Your task to perform on an android device: install app "Pluto TV - Live TV and Movies" Image 0: 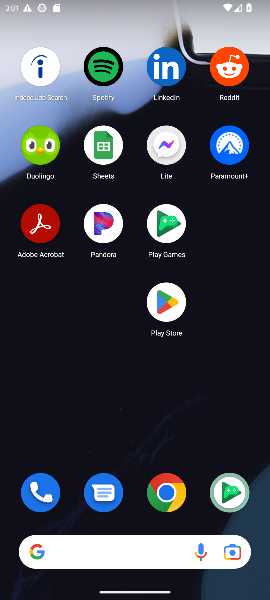
Step 0: click (176, 304)
Your task to perform on an android device: install app "Pluto TV - Live TV and Movies" Image 1: 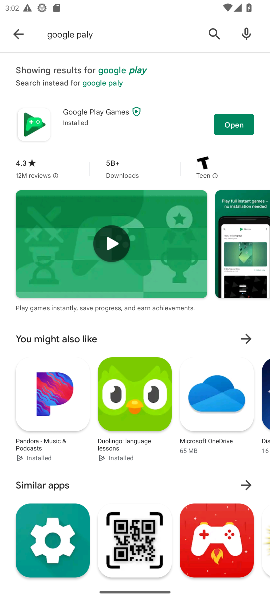
Step 1: click (212, 22)
Your task to perform on an android device: install app "Pluto TV - Live TV and Movies" Image 2: 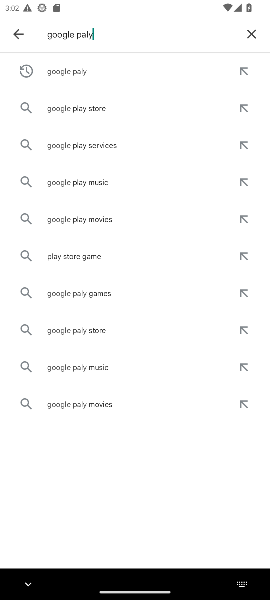
Step 2: click (255, 29)
Your task to perform on an android device: install app "Pluto TV - Live TV and Movies" Image 3: 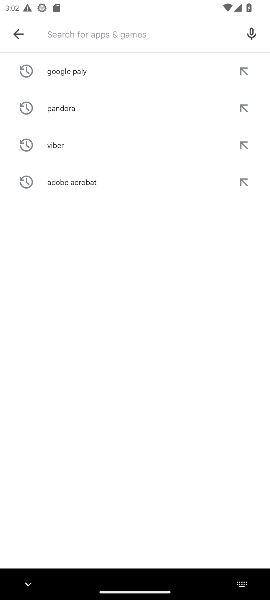
Step 3: type "pluto"
Your task to perform on an android device: install app "Pluto TV - Live TV and Movies" Image 4: 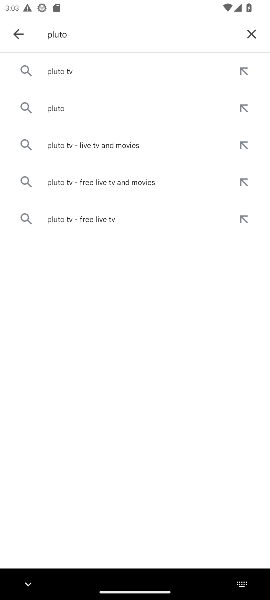
Step 4: click (44, 64)
Your task to perform on an android device: install app "Pluto TV - Live TV and Movies" Image 5: 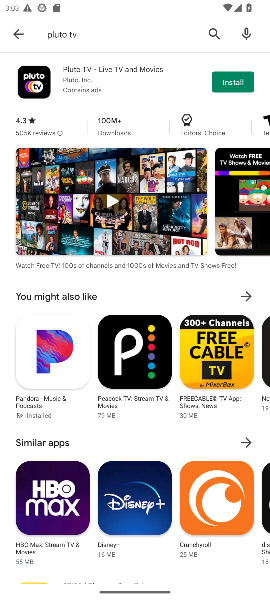
Step 5: click (228, 83)
Your task to perform on an android device: install app "Pluto TV - Live TV and Movies" Image 6: 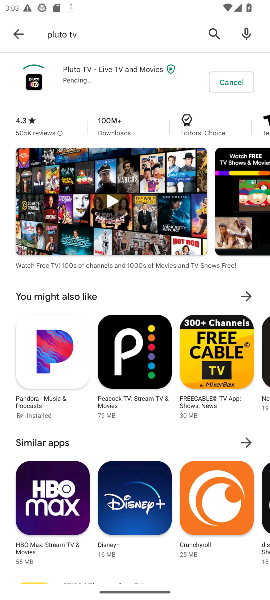
Step 6: task complete